Your task to perform on an android device: Open Google Maps Image 0: 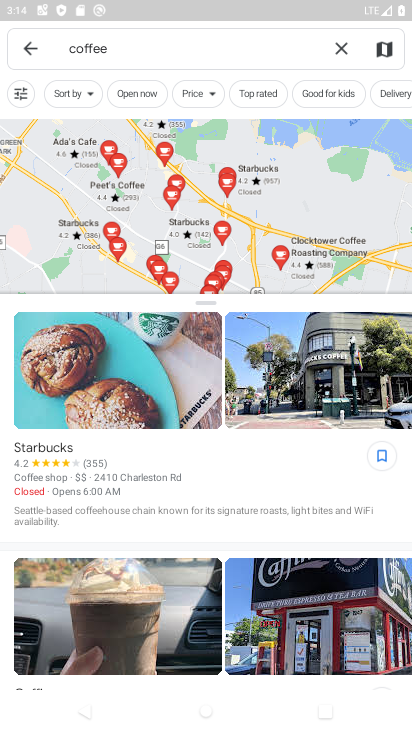
Step 0: press back button
Your task to perform on an android device: Open Google Maps Image 1: 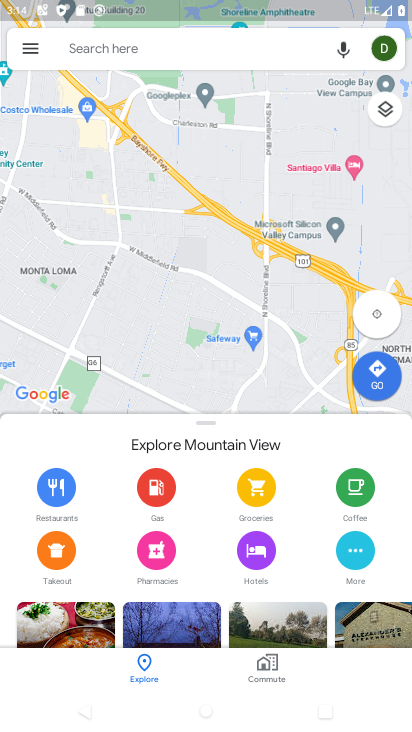
Step 1: task complete